Your task to perform on an android device: toggle translation in the chrome app Image 0: 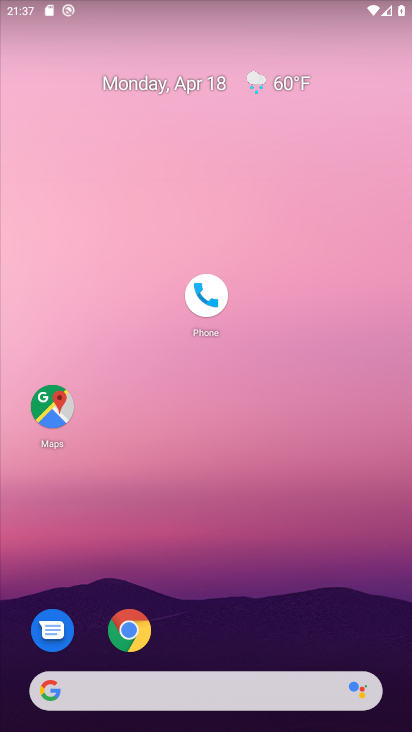
Step 0: click (136, 623)
Your task to perform on an android device: toggle translation in the chrome app Image 1: 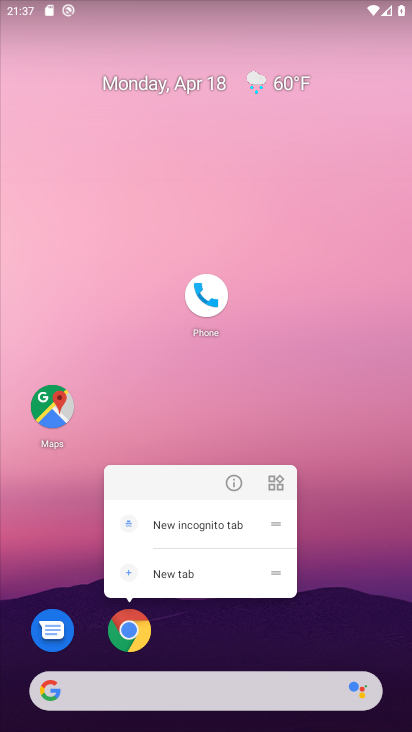
Step 1: drag from (375, 621) to (340, 74)
Your task to perform on an android device: toggle translation in the chrome app Image 2: 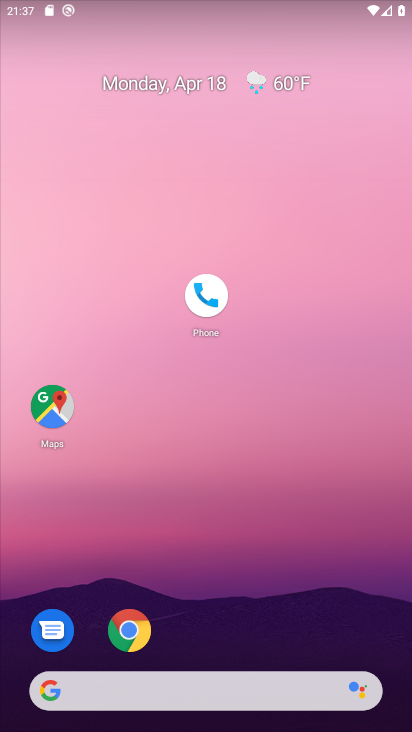
Step 2: drag from (256, 593) to (289, 67)
Your task to perform on an android device: toggle translation in the chrome app Image 3: 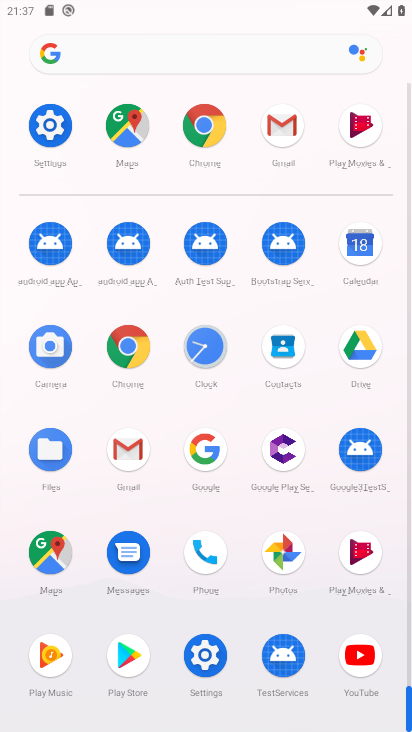
Step 3: click (131, 350)
Your task to perform on an android device: toggle translation in the chrome app Image 4: 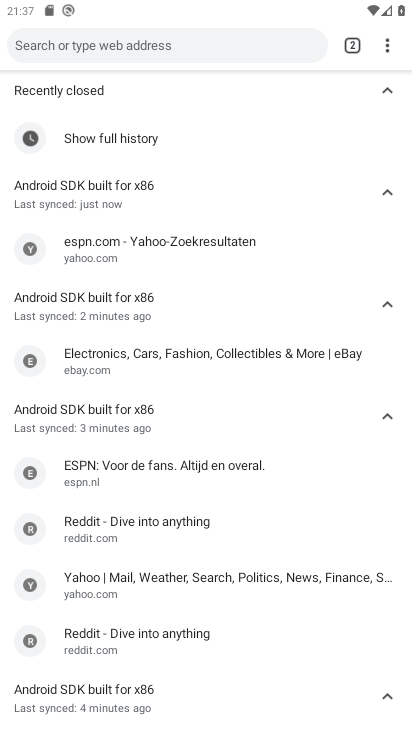
Step 4: click (391, 39)
Your task to perform on an android device: toggle translation in the chrome app Image 5: 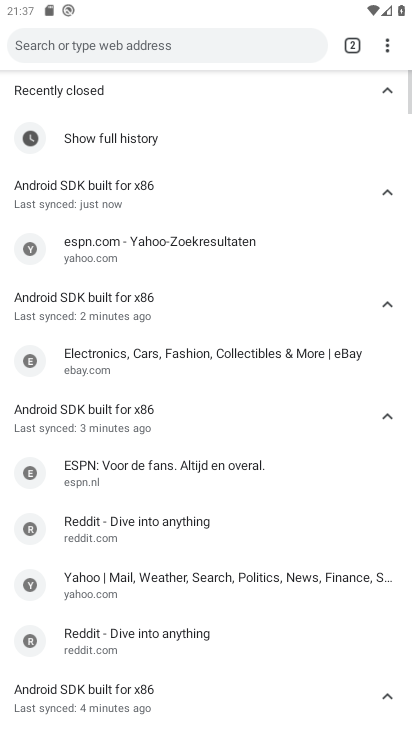
Step 5: drag from (386, 42) to (229, 437)
Your task to perform on an android device: toggle translation in the chrome app Image 6: 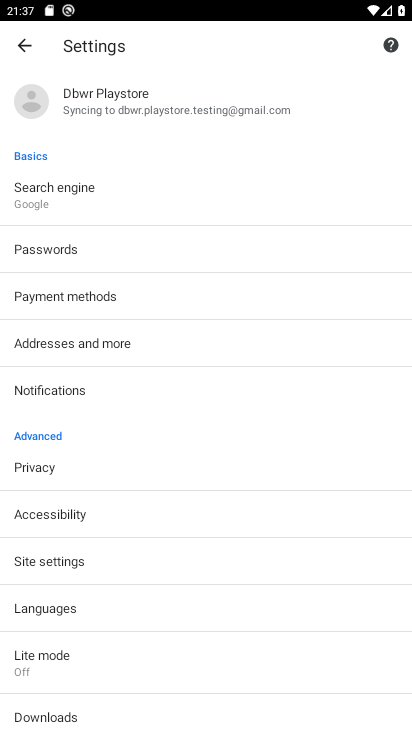
Step 6: click (82, 605)
Your task to perform on an android device: toggle translation in the chrome app Image 7: 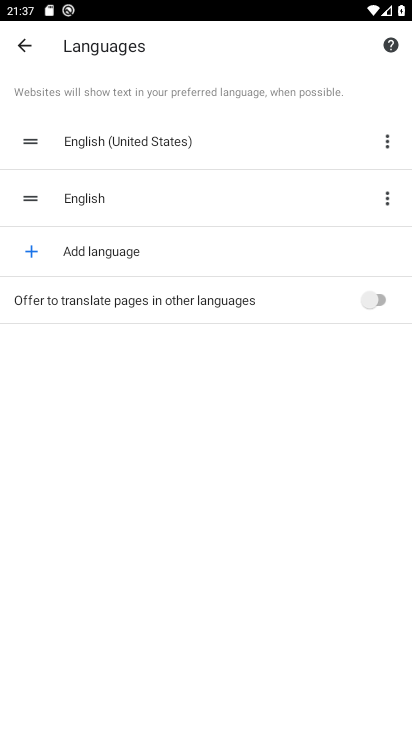
Step 7: click (359, 304)
Your task to perform on an android device: toggle translation in the chrome app Image 8: 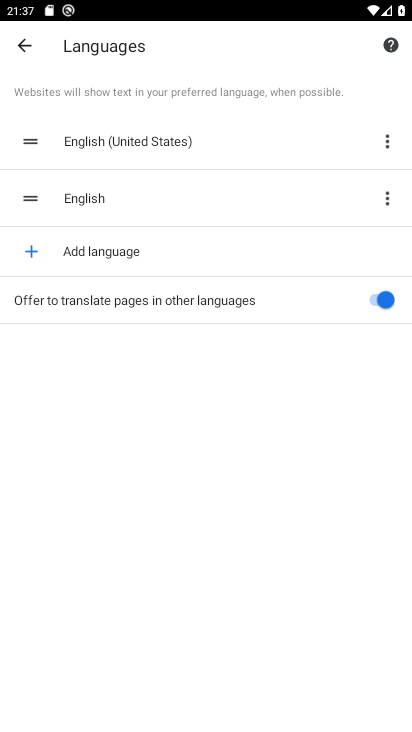
Step 8: task complete